Your task to perform on an android device: find photos in the google photos app Image 0: 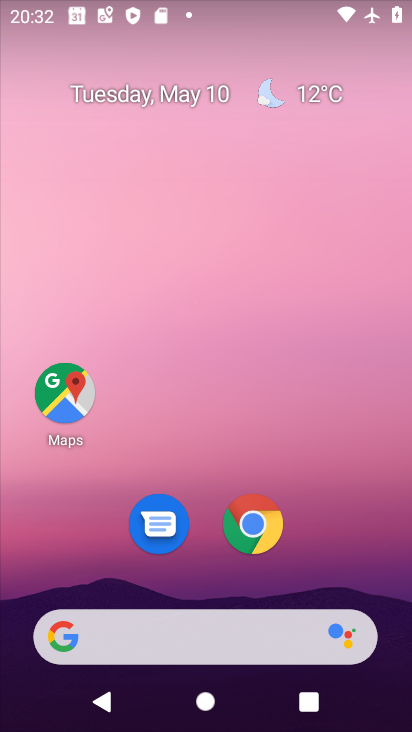
Step 0: drag from (313, 555) to (252, 25)
Your task to perform on an android device: find photos in the google photos app Image 1: 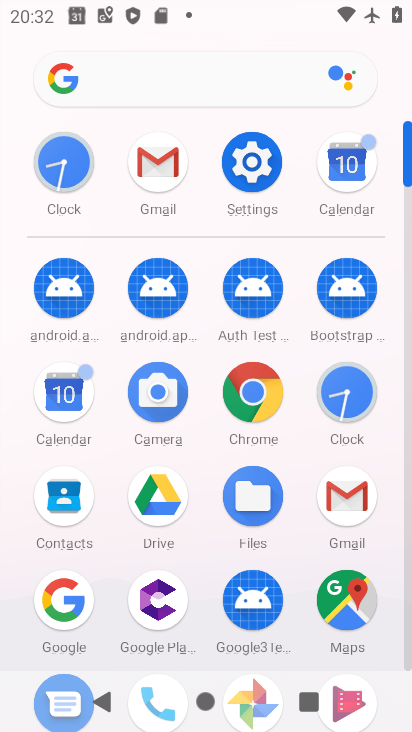
Step 1: drag from (204, 505) to (199, 311)
Your task to perform on an android device: find photos in the google photos app Image 2: 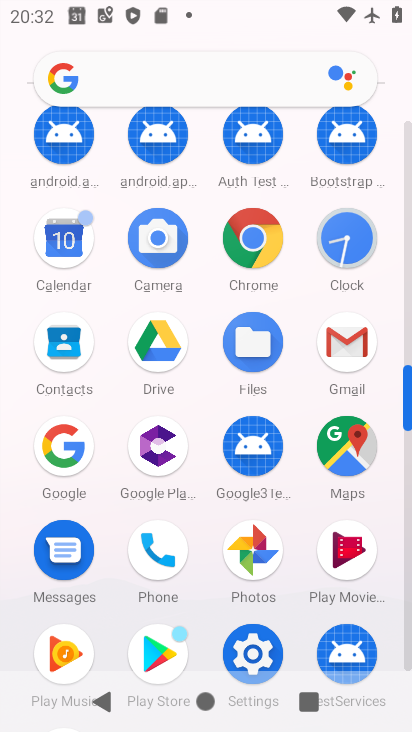
Step 2: click (246, 538)
Your task to perform on an android device: find photos in the google photos app Image 3: 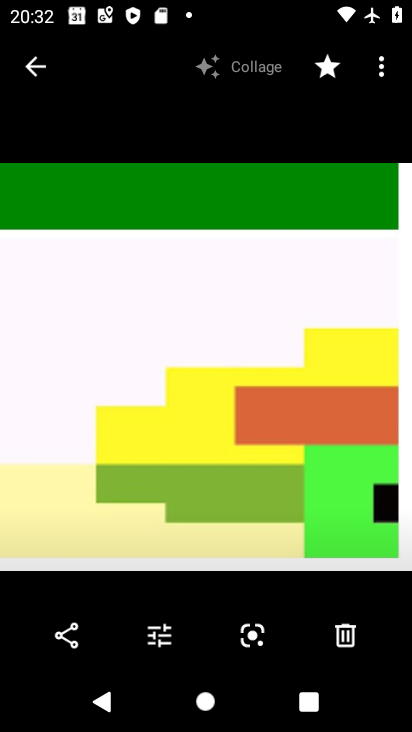
Step 3: click (30, 66)
Your task to perform on an android device: find photos in the google photos app Image 4: 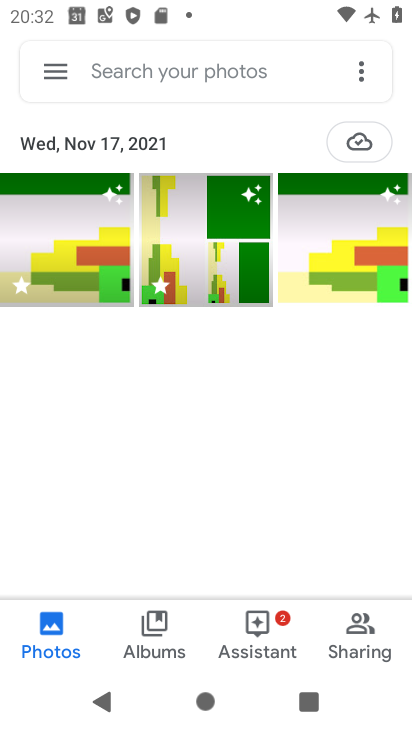
Step 4: task complete